Your task to perform on an android device: Open notification settings Image 0: 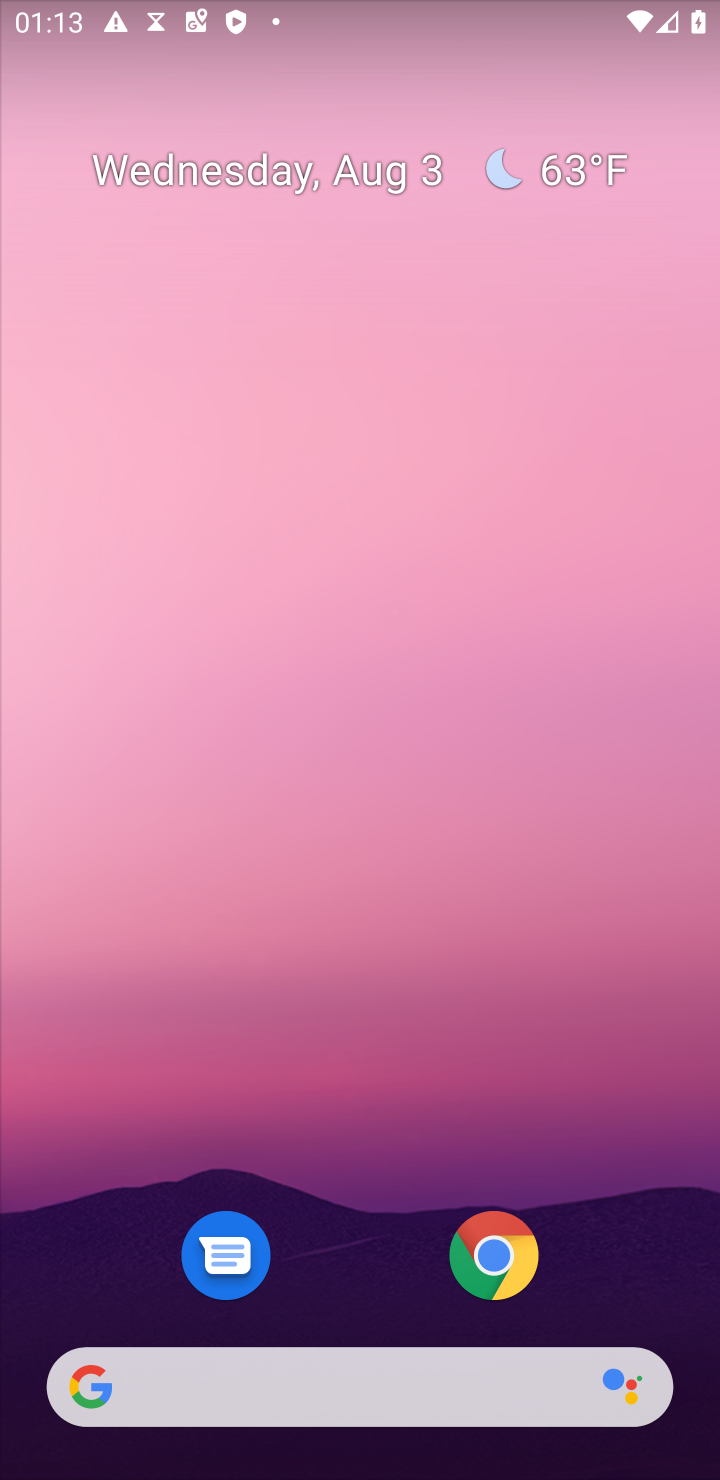
Step 0: drag from (656, 1302) to (441, 197)
Your task to perform on an android device: Open notification settings Image 1: 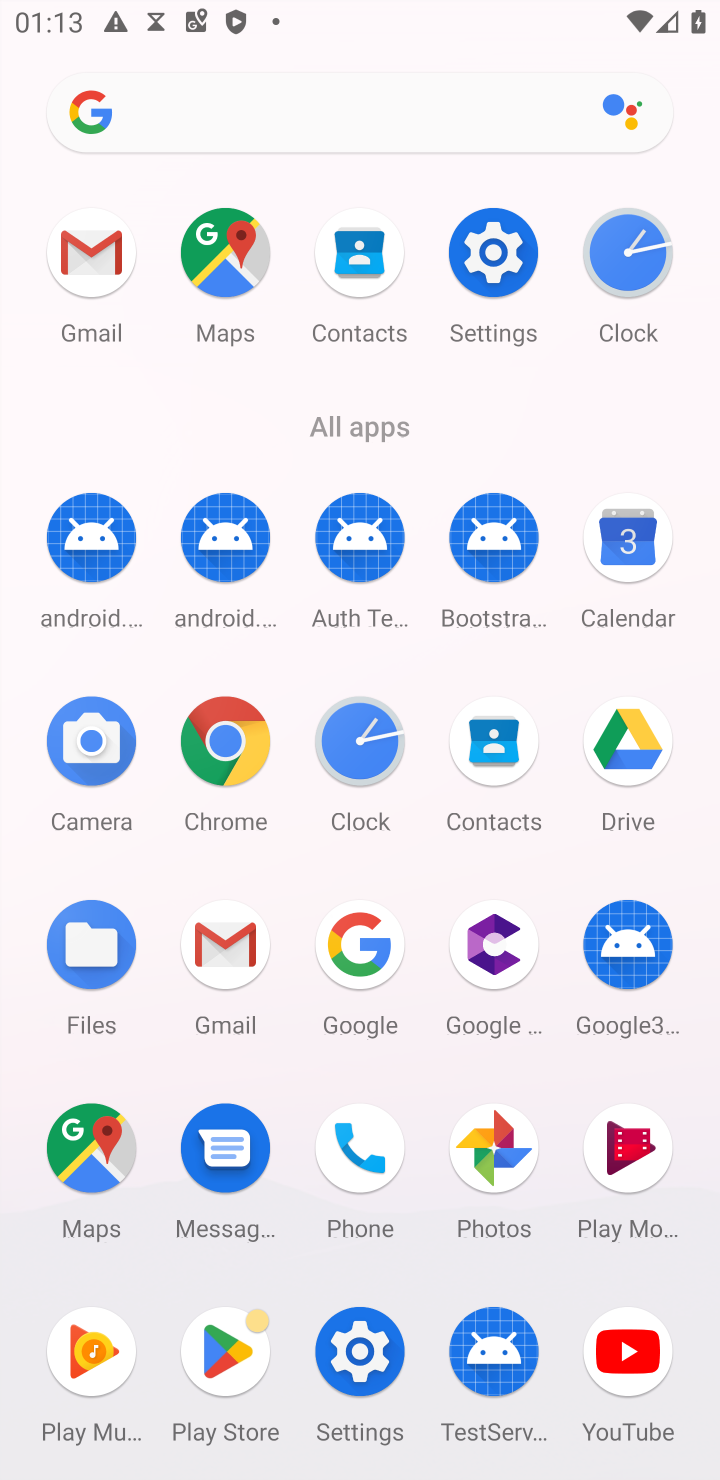
Step 1: click (499, 213)
Your task to perform on an android device: Open notification settings Image 2: 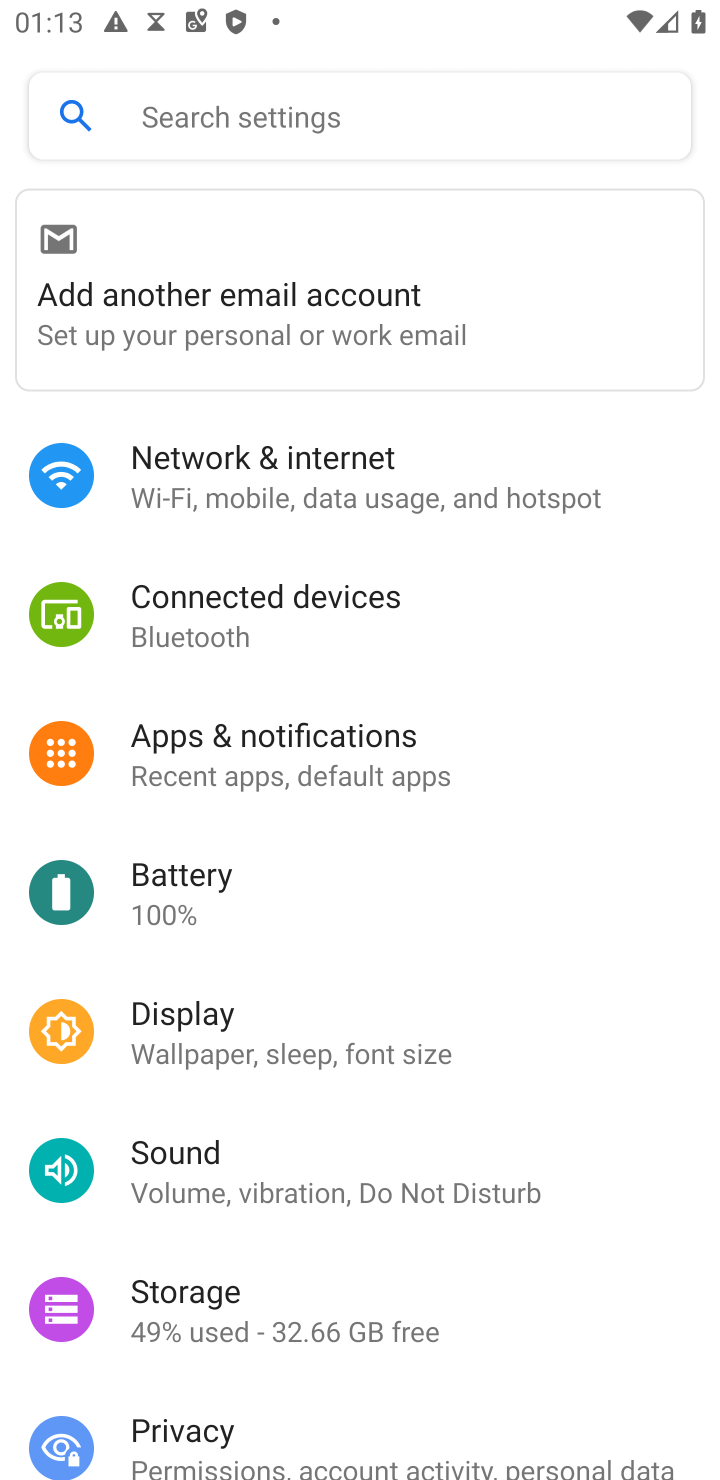
Step 2: click (412, 759)
Your task to perform on an android device: Open notification settings Image 3: 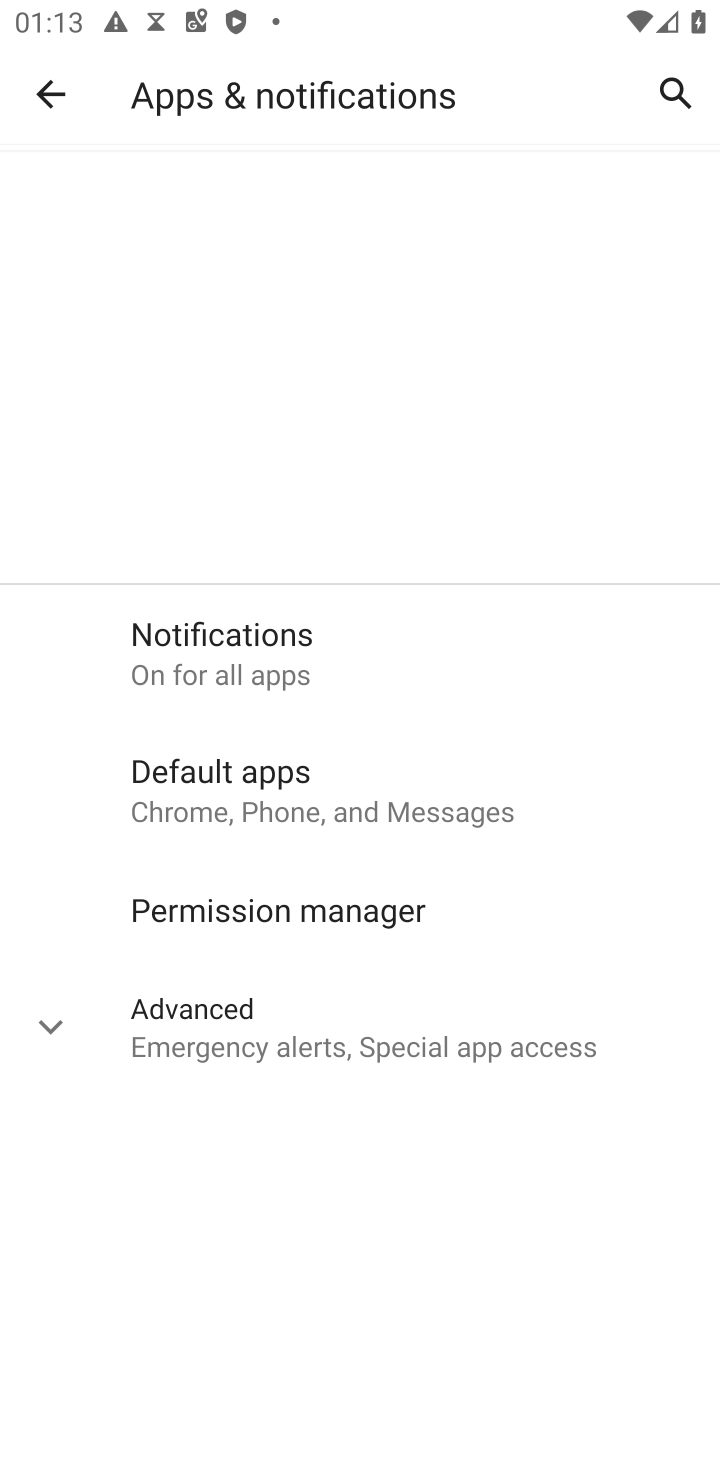
Step 3: click (338, 645)
Your task to perform on an android device: Open notification settings Image 4: 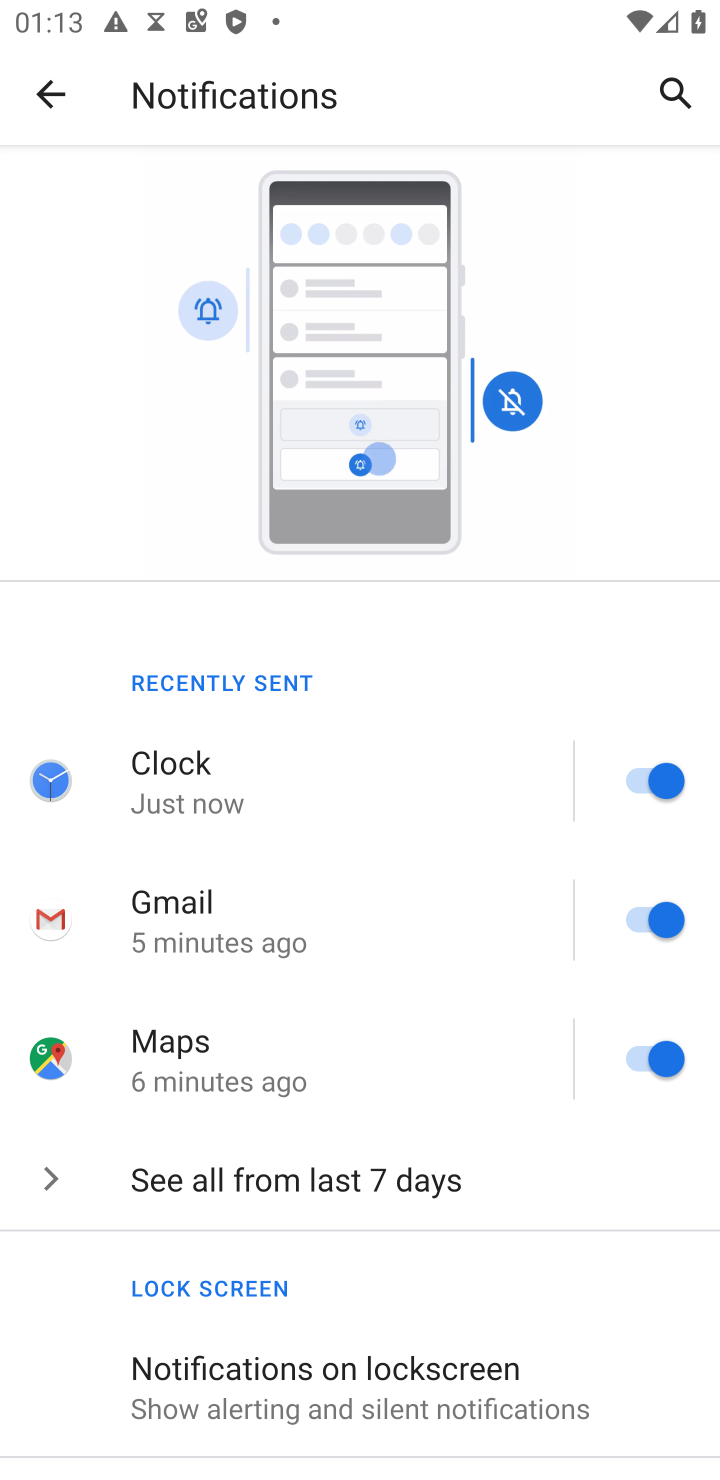
Step 4: task complete